Your task to perform on an android device: turn off notifications in google photos Image 0: 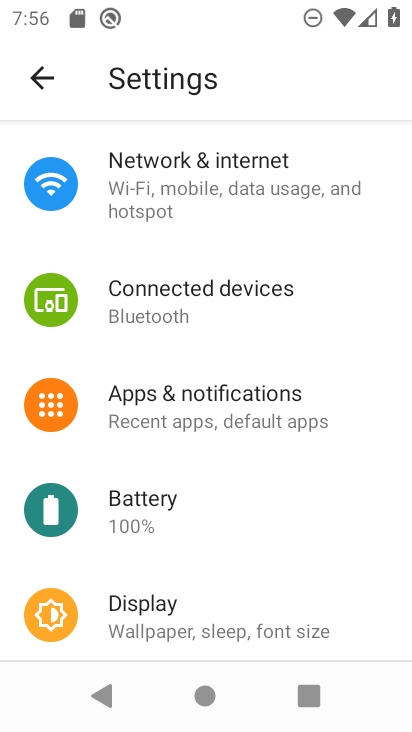
Step 0: press home button
Your task to perform on an android device: turn off notifications in google photos Image 1: 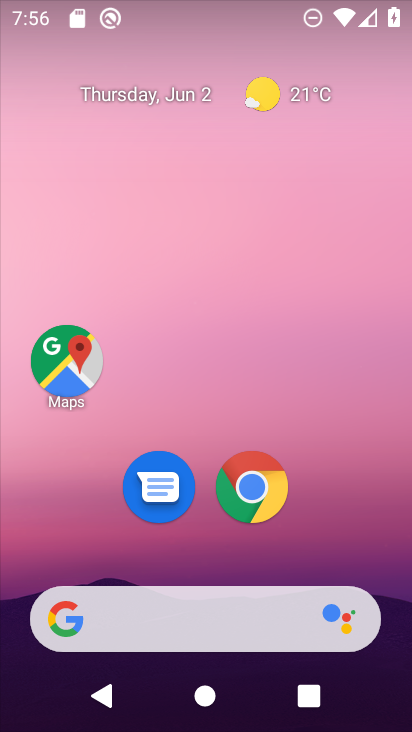
Step 1: drag from (186, 573) to (235, 32)
Your task to perform on an android device: turn off notifications in google photos Image 2: 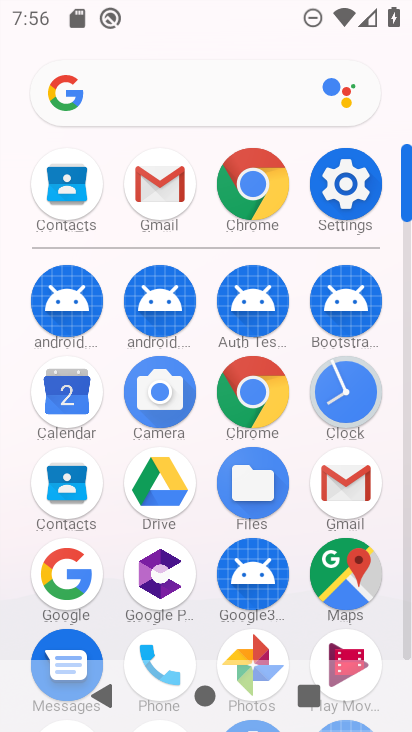
Step 2: click (243, 653)
Your task to perform on an android device: turn off notifications in google photos Image 3: 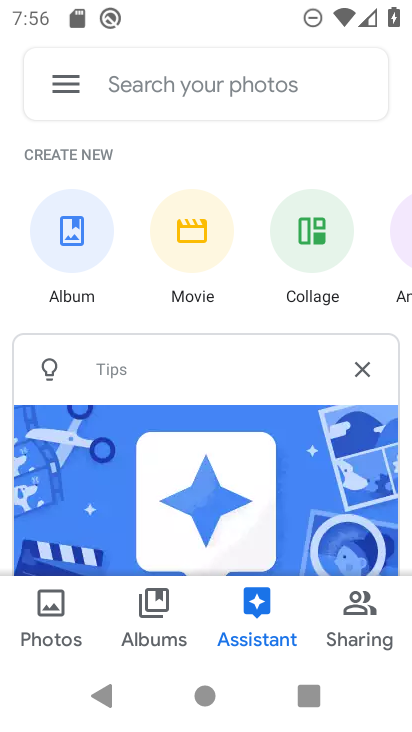
Step 3: click (58, 79)
Your task to perform on an android device: turn off notifications in google photos Image 4: 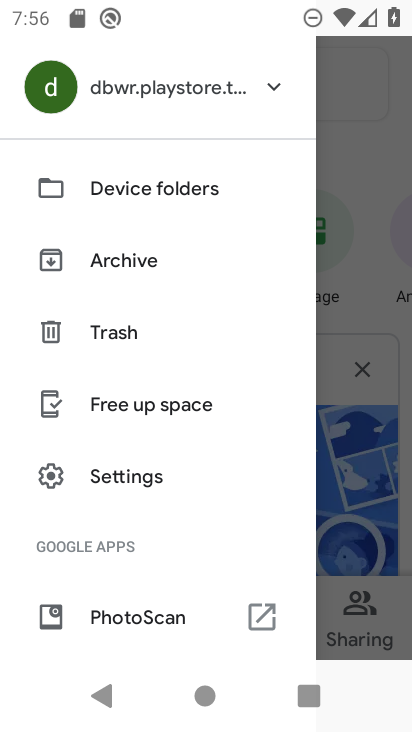
Step 4: click (106, 474)
Your task to perform on an android device: turn off notifications in google photos Image 5: 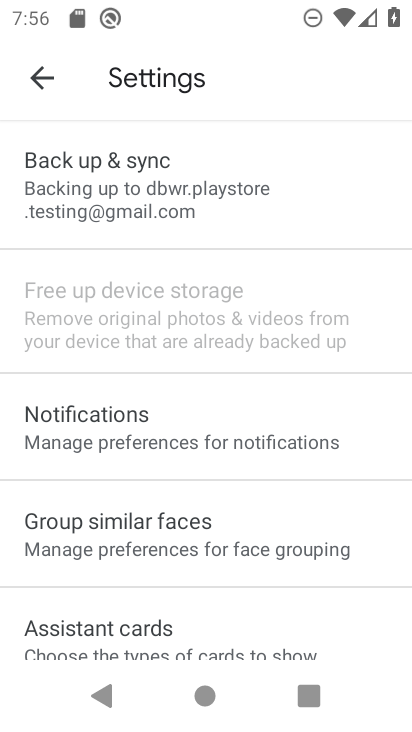
Step 5: click (102, 433)
Your task to perform on an android device: turn off notifications in google photos Image 6: 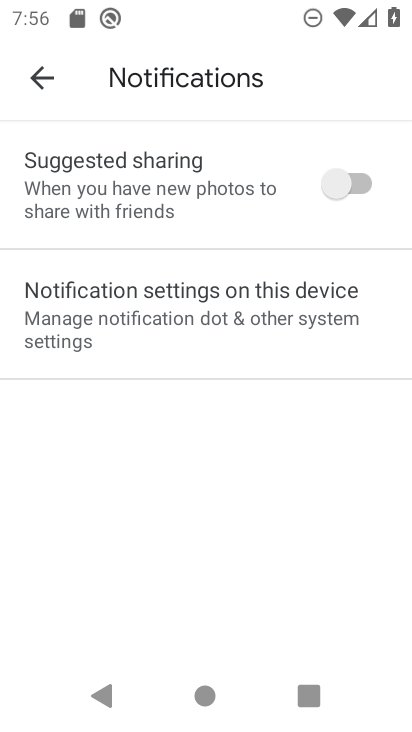
Step 6: click (322, 308)
Your task to perform on an android device: turn off notifications in google photos Image 7: 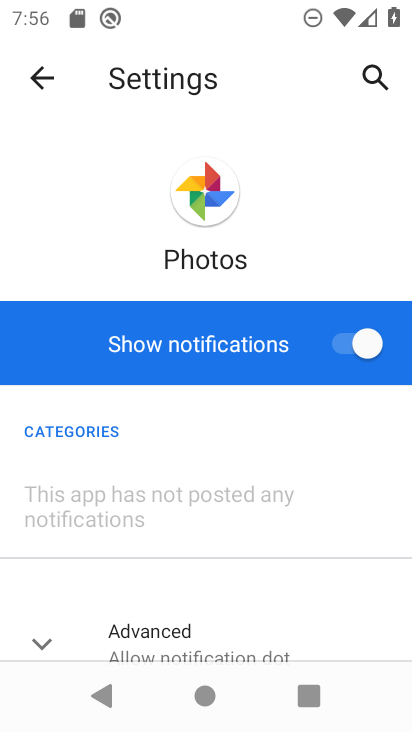
Step 7: click (339, 349)
Your task to perform on an android device: turn off notifications in google photos Image 8: 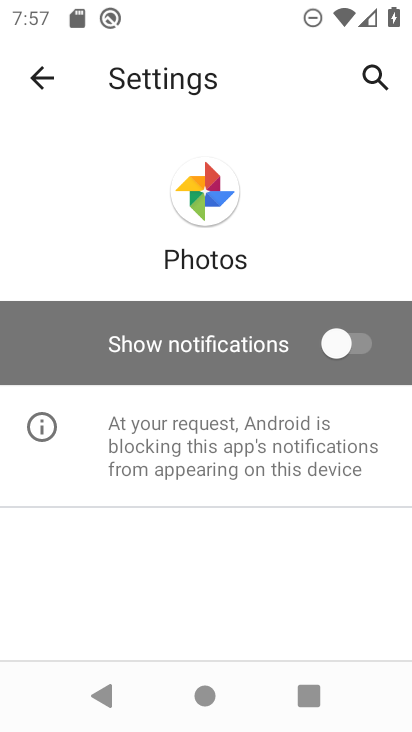
Step 8: task complete